Your task to perform on an android device: What's the weather going to be this weekend? Image 0: 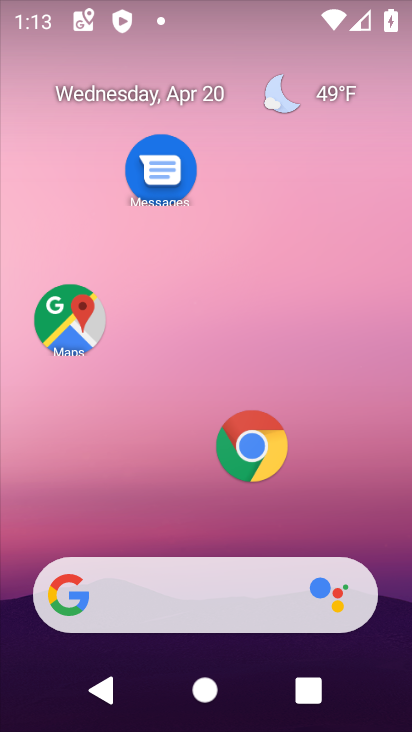
Step 0: drag from (201, 524) to (215, 97)
Your task to perform on an android device: What's the weather going to be this weekend? Image 1: 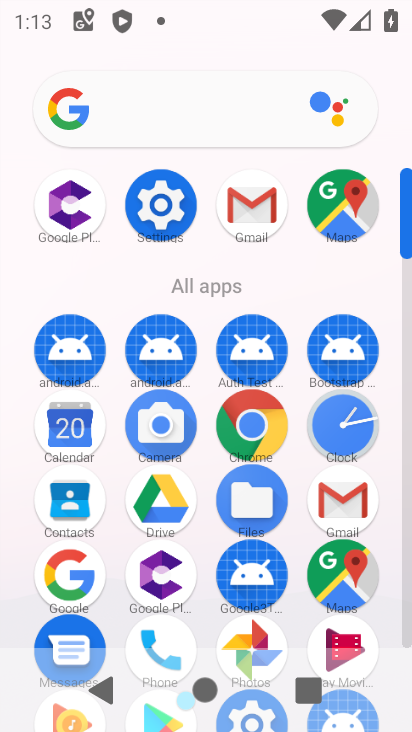
Step 1: press home button
Your task to perform on an android device: What's the weather going to be this weekend? Image 2: 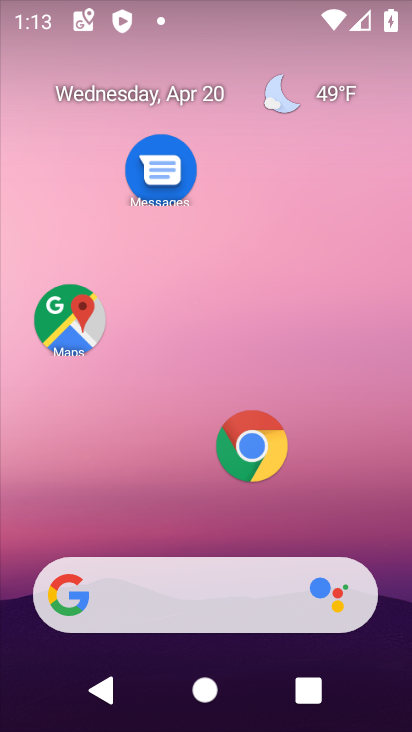
Step 2: click (298, 92)
Your task to perform on an android device: What's the weather going to be this weekend? Image 3: 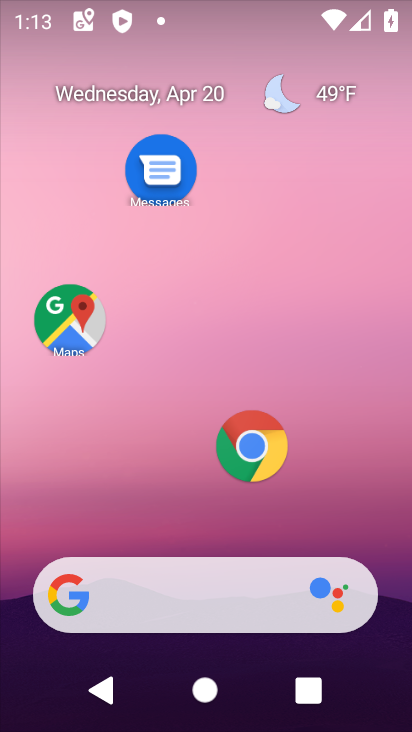
Step 3: click (275, 88)
Your task to perform on an android device: What's the weather going to be this weekend? Image 4: 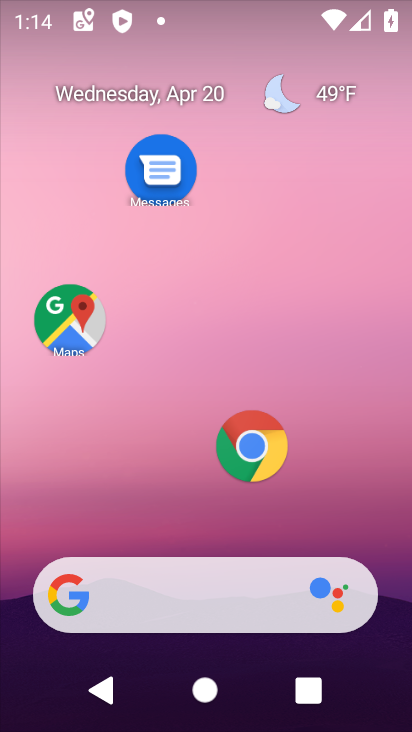
Step 4: click (300, 98)
Your task to perform on an android device: What's the weather going to be this weekend? Image 5: 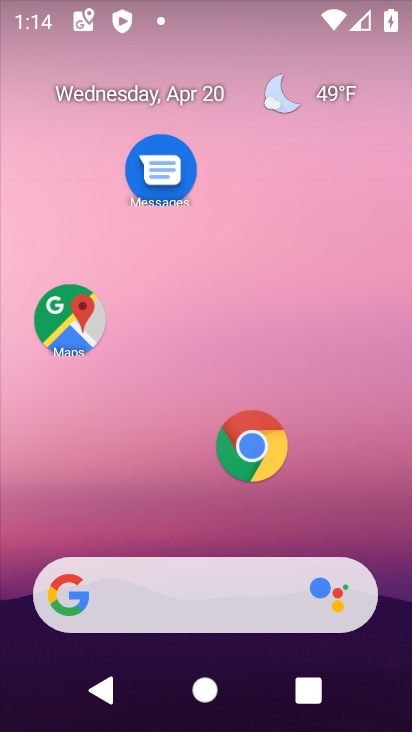
Step 5: click (338, 94)
Your task to perform on an android device: What's the weather going to be this weekend? Image 6: 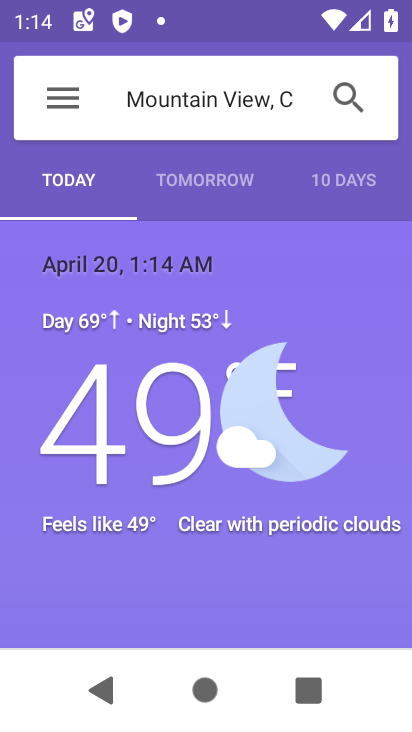
Step 6: click (340, 184)
Your task to perform on an android device: What's the weather going to be this weekend? Image 7: 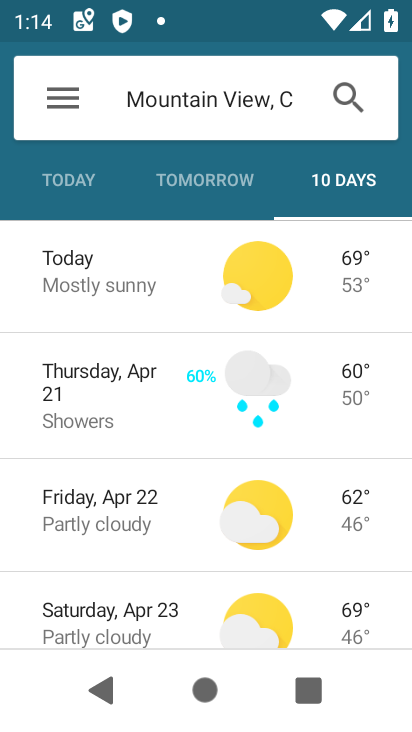
Step 7: task complete